Your task to perform on an android device: Go to settings Image 0: 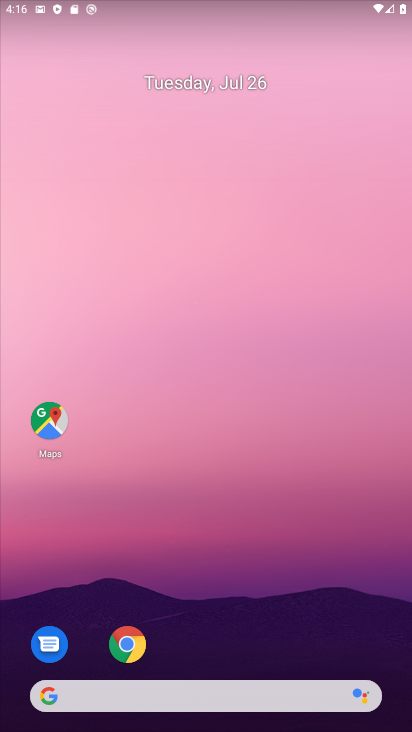
Step 0: drag from (185, 626) to (229, 114)
Your task to perform on an android device: Go to settings Image 1: 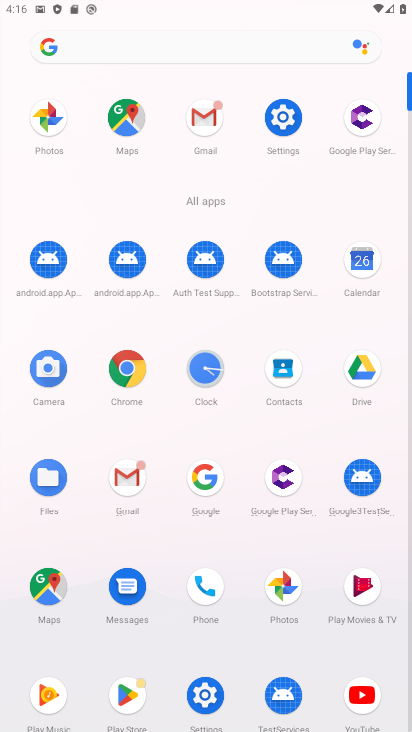
Step 1: click (209, 691)
Your task to perform on an android device: Go to settings Image 2: 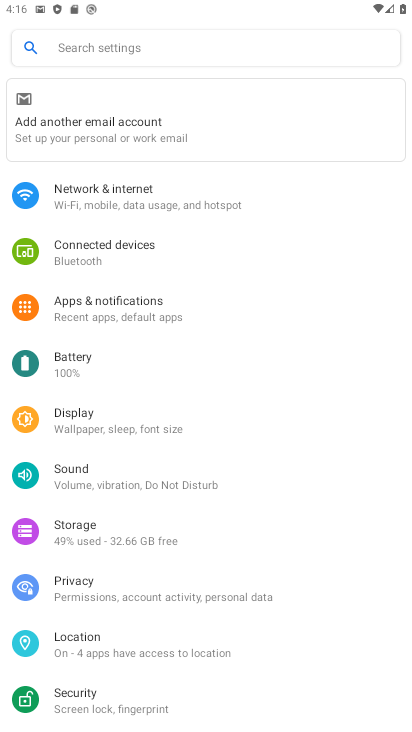
Step 2: task complete